Your task to perform on an android device: open a new tab in the chrome app Image 0: 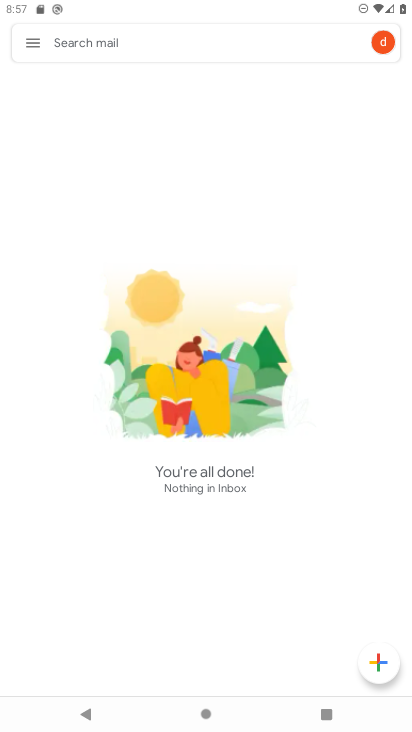
Step 0: press home button
Your task to perform on an android device: open a new tab in the chrome app Image 1: 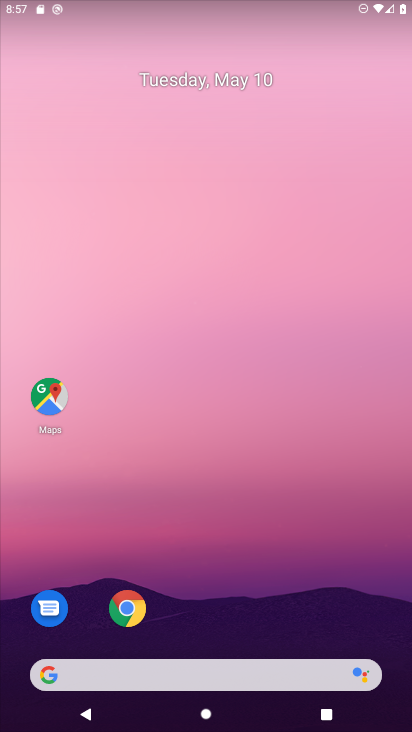
Step 1: drag from (313, 592) to (263, 76)
Your task to perform on an android device: open a new tab in the chrome app Image 2: 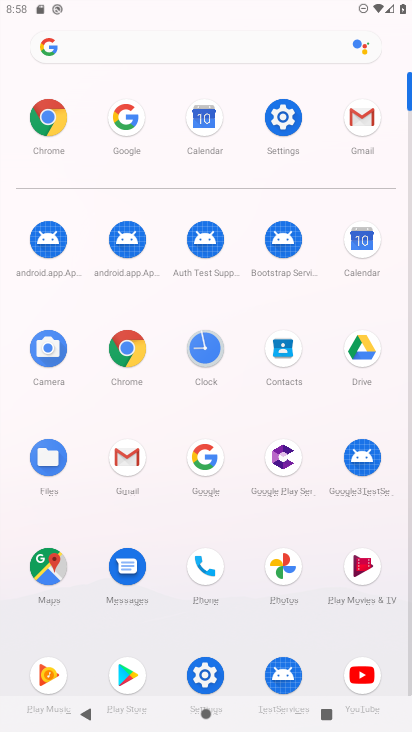
Step 2: click (130, 347)
Your task to perform on an android device: open a new tab in the chrome app Image 3: 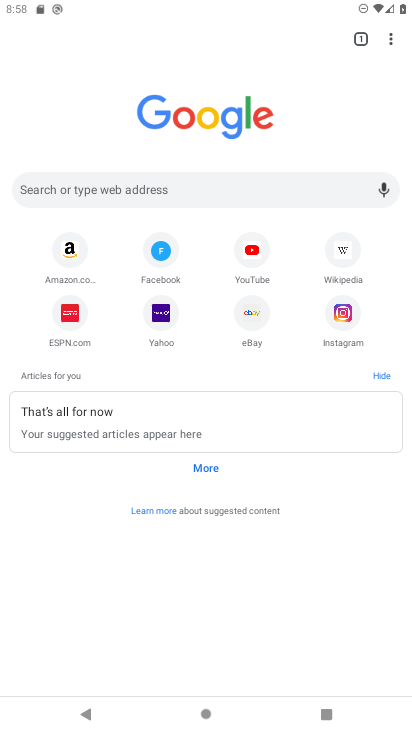
Step 3: click (386, 36)
Your task to perform on an android device: open a new tab in the chrome app Image 4: 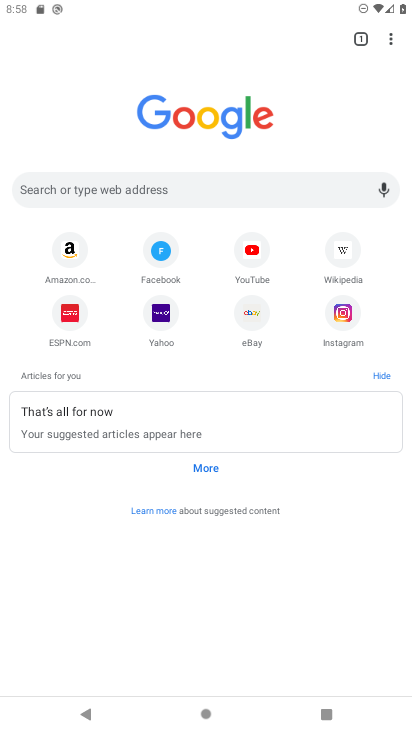
Step 4: click (386, 36)
Your task to perform on an android device: open a new tab in the chrome app Image 5: 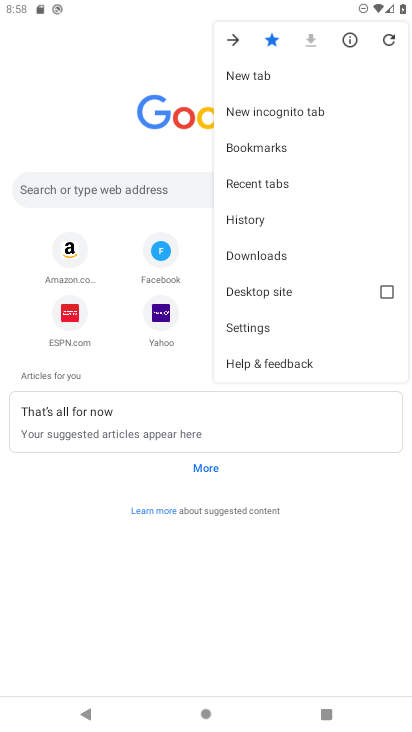
Step 5: click (303, 83)
Your task to perform on an android device: open a new tab in the chrome app Image 6: 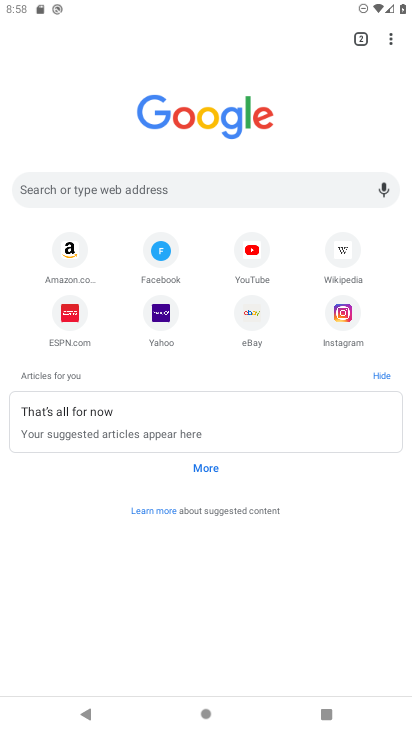
Step 6: task complete